Your task to perform on an android device: Open sound settings Image 0: 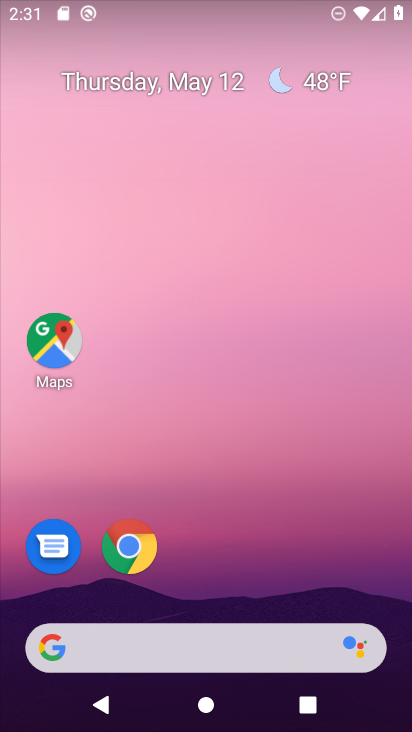
Step 0: drag from (276, 493) to (235, 293)
Your task to perform on an android device: Open sound settings Image 1: 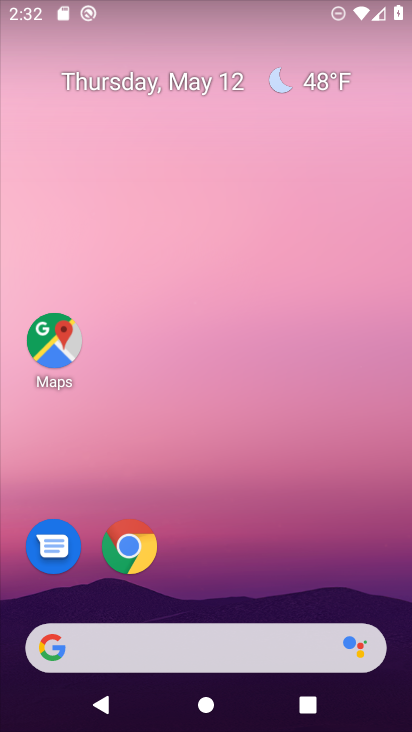
Step 1: drag from (255, 678) to (263, 285)
Your task to perform on an android device: Open sound settings Image 2: 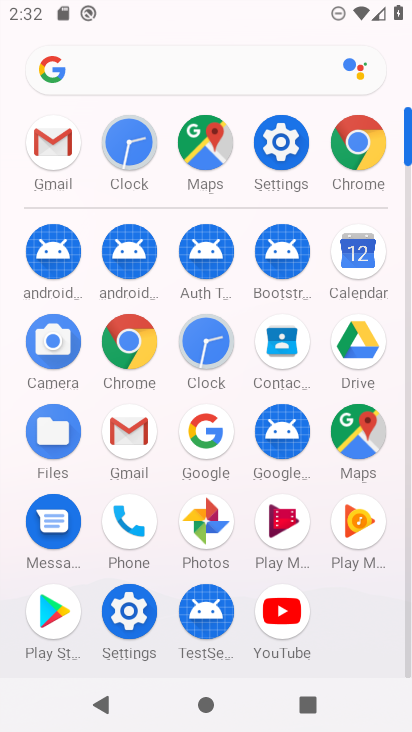
Step 2: click (263, 156)
Your task to perform on an android device: Open sound settings Image 3: 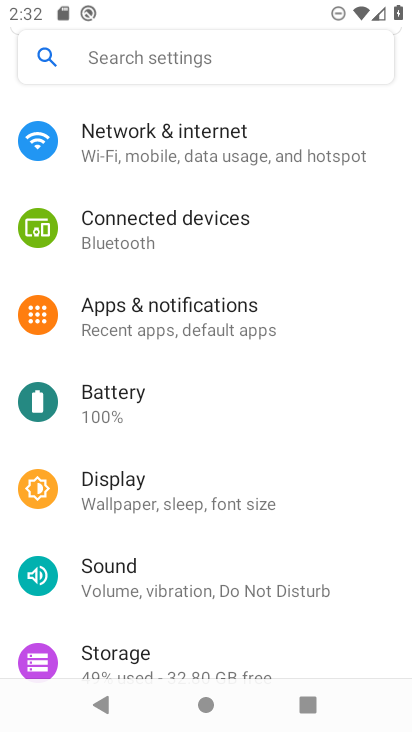
Step 3: click (145, 576)
Your task to perform on an android device: Open sound settings Image 4: 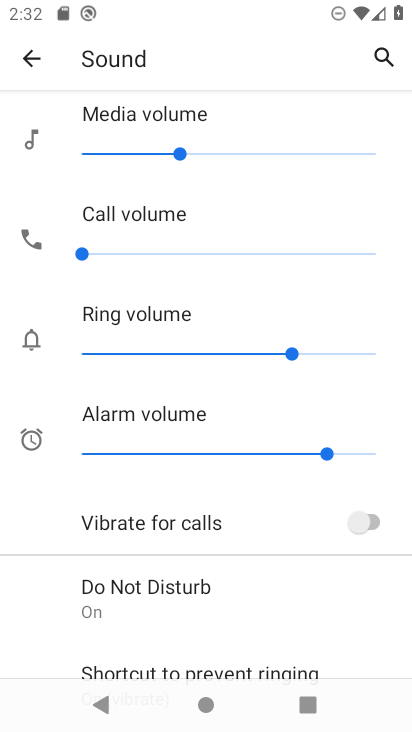
Step 4: task complete